Your task to perform on an android device: Open Reddit.com Image 0: 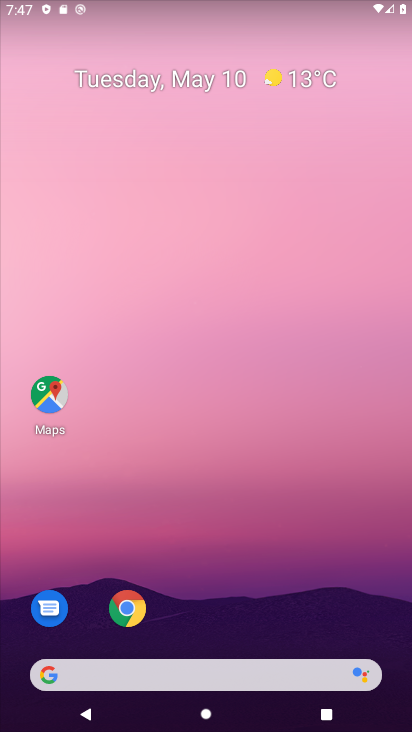
Step 0: click (131, 614)
Your task to perform on an android device: Open Reddit.com Image 1: 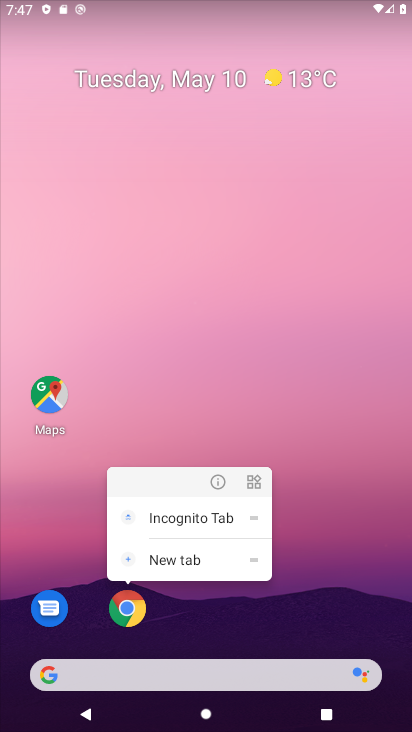
Step 1: click (125, 607)
Your task to perform on an android device: Open Reddit.com Image 2: 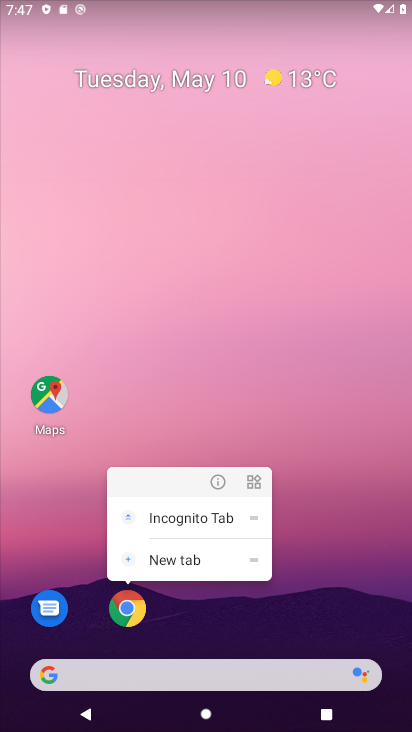
Step 2: click (130, 607)
Your task to perform on an android device: Open Reddit.com Image 3: 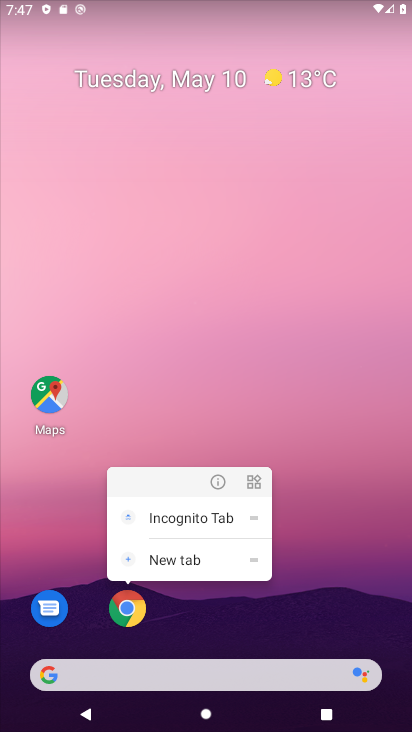
Step 3: click (126, 611)
Your task to perform on an android device: Open Reddit.com Image 4: 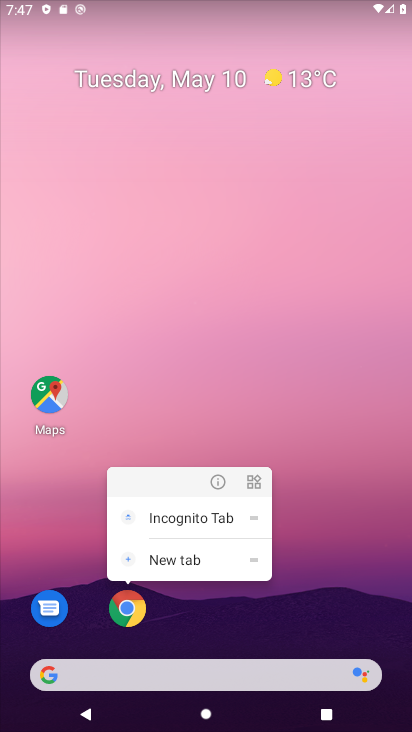
Step 4: click (126, 618)
Your task to perform on an android device: Open Reddit.com Image 5: 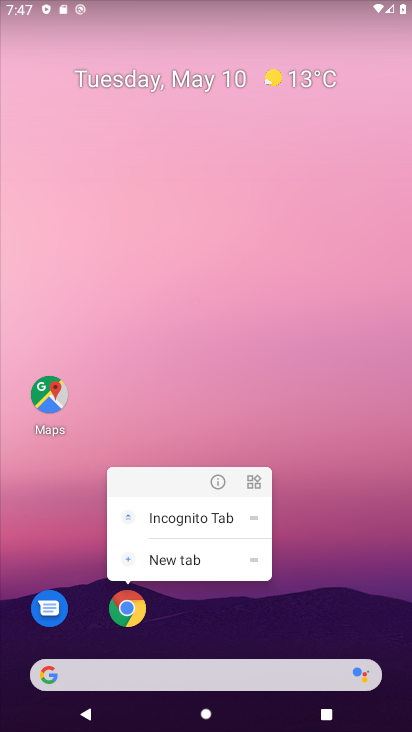
Step 5: drag from (143, 678) to (273, 120)
Your task to perform on an android device: Open Reddit.com Image 6: 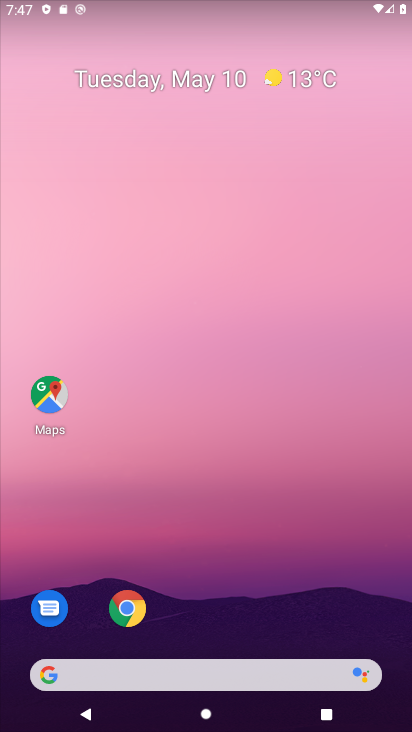
Step 6: drag from (189, 664) to (337, 146)
Your task to perform on an android device: Open Reddit.com Image 7: 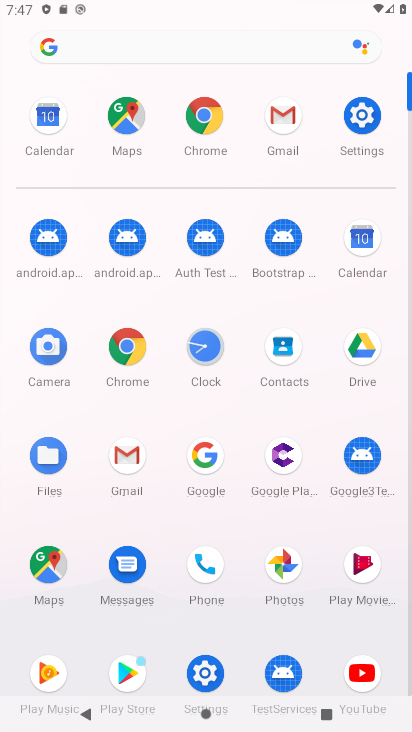
Step 7: click (200, 121)
Your task to perform on an android device: Open Reddit.com Image 8: 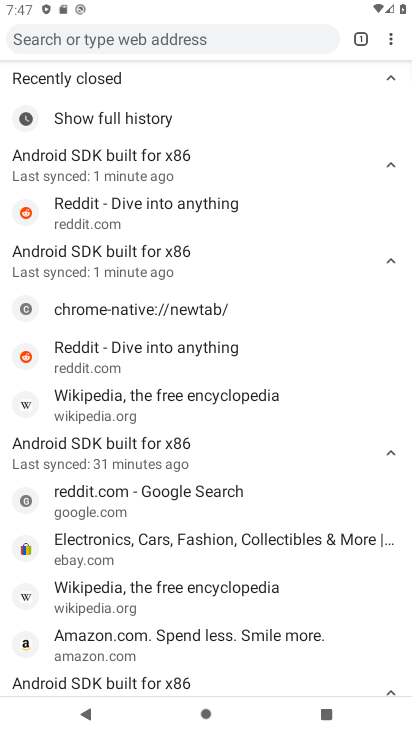
Step 8: drag from (393, 41) to (300, 78)
Your task to perform on an android device: Open Reddit.com Image 9: 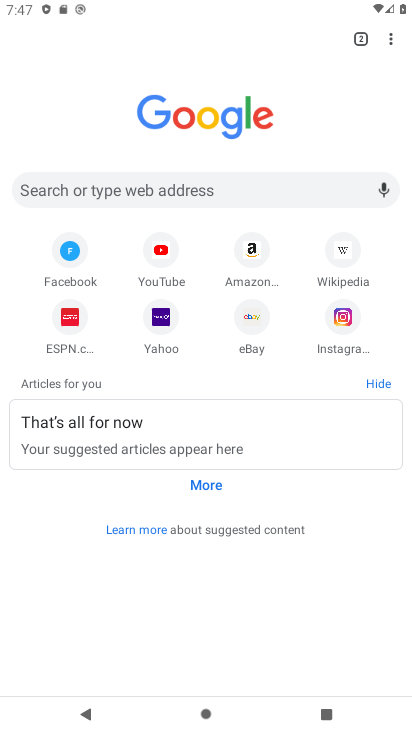
Step 9: click (114, 190)
Your task to perform on an android device: Open Reddit.com Image 10: 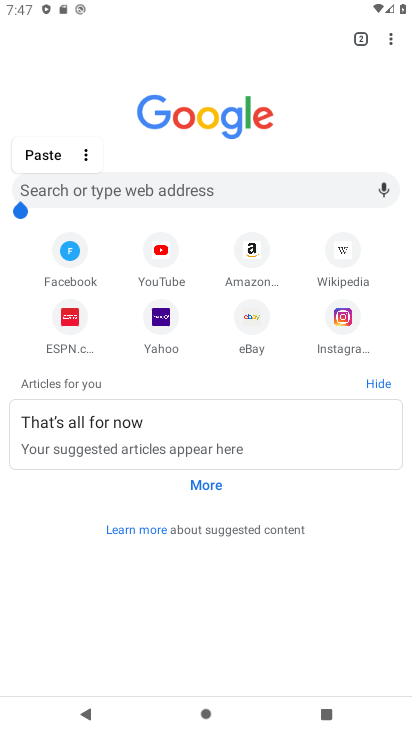
Step 10: click (83, 188)
Your task to perform on an android device: Open Reddit.com Image 11: 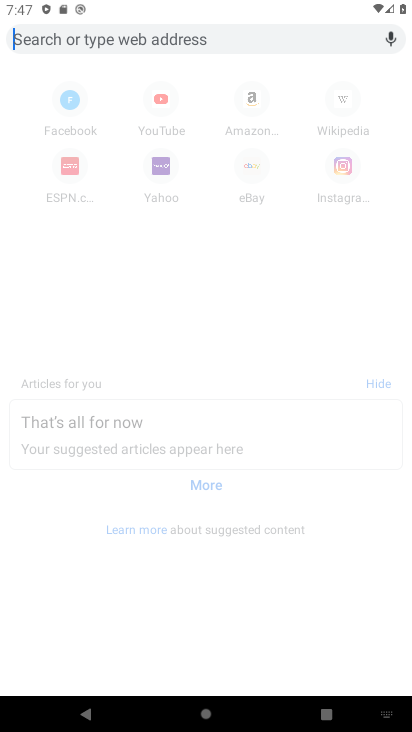
Step 11: type "reddit.com"
Your task to perform on an android device: Open Reddit.com Image 12: 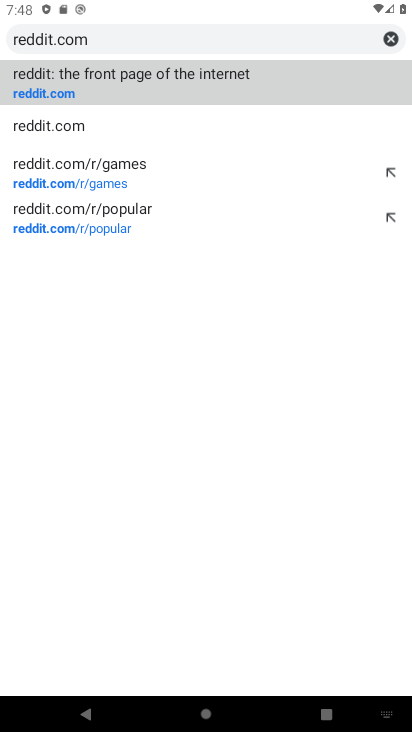
Step 12: click (94, 85)
Your task to perform on an android device: Open Reddit.com Image 13: 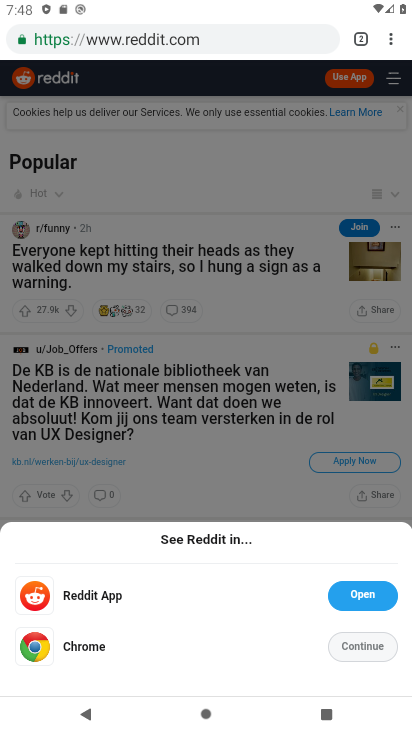
Step 13: task complete